Your task to perform on an android device: What is the news today? Image 0: 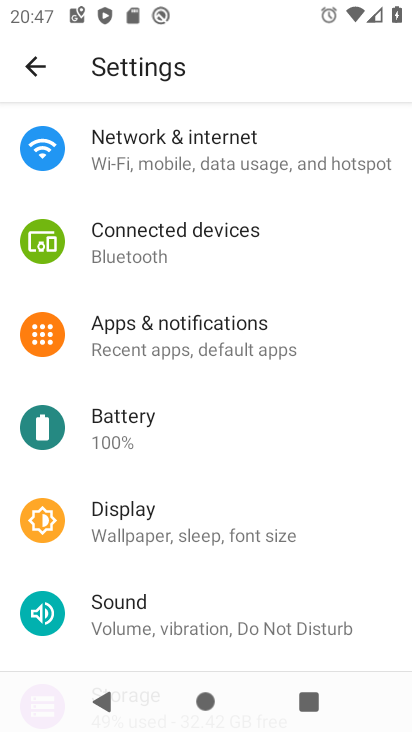
Step 0: press home button
Your task to perform on an android device: What is the news today? Image 1: 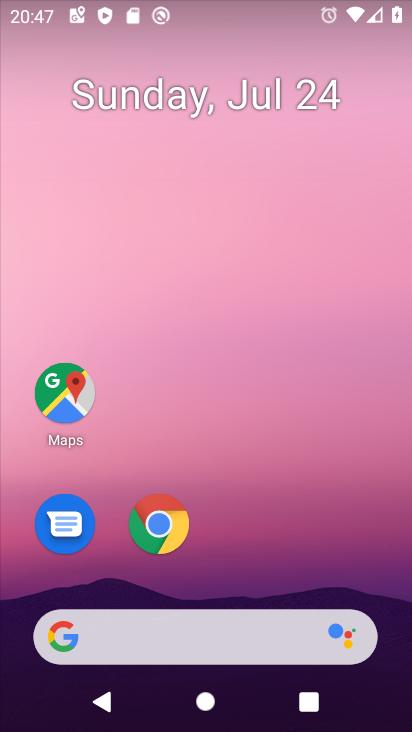
Step 1: click (219, 645)
Your task to perform on an android device: What is the news today? Image 2: 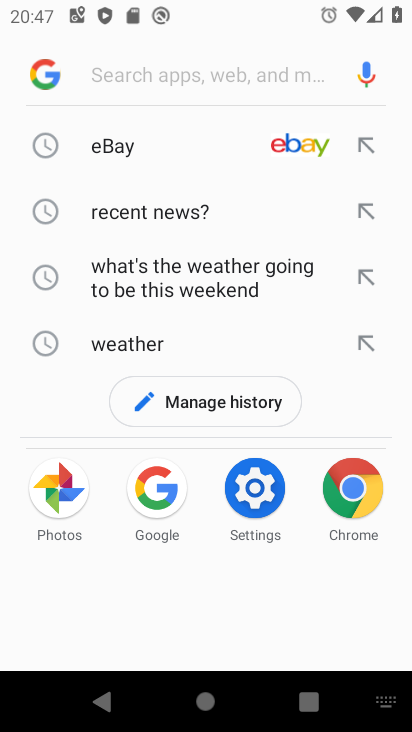
Step 2: click (134, 203)
Your task to perform on an android device: What is the news today? Image 3: 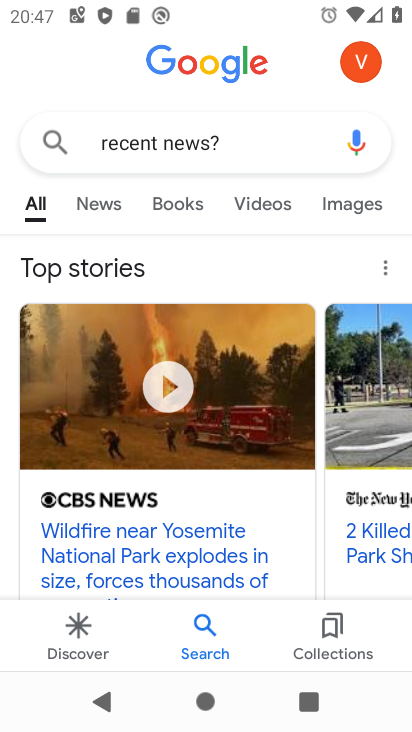
Step 3: drag from (230, 511) to (263, 181)
Your task to perform on an android device: What is the news today? Image 4: 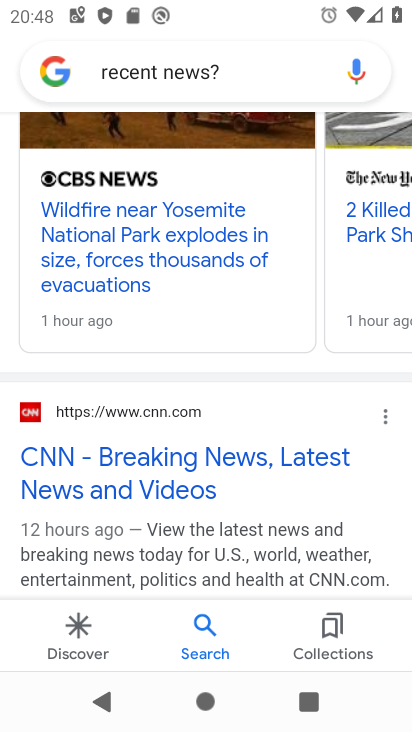
Step 4: drag from (266, 536) to (254, 312)
Your task to perform on an android device: What is the news today? Image 5: 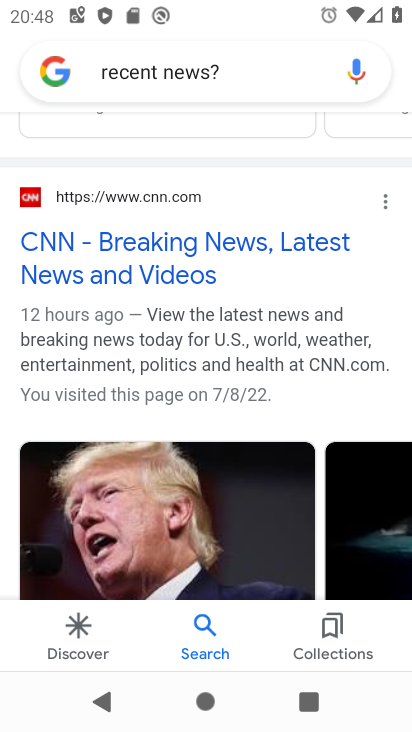
Step 5: drag from (210, 220) to (227, 613)
Your task to perform on an android device: What is the news today? Image 6: 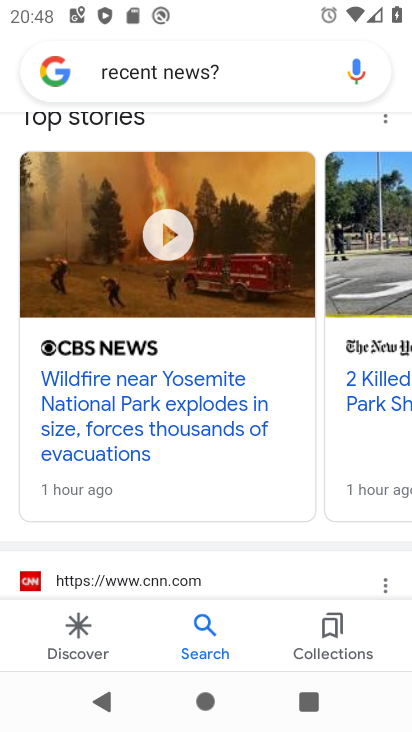
Step 6: drag from (228, 372) to (48, 314)
Your task to perform on an android device: What is the news today? Image 7: 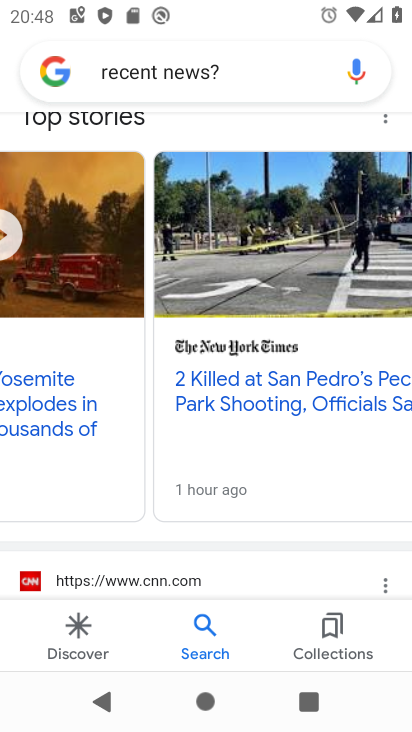
Step 7: drag from (358, 392) to (142, 393)
Your task to perform on an android device: What is the news today? Image 8: 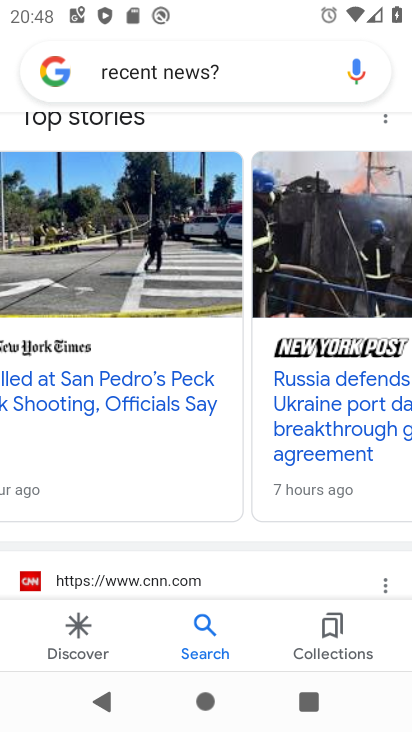
Step 8: drag from (347, 418) to (187, 423)
Your task to perform on an android device: What is the news today? Image 9: 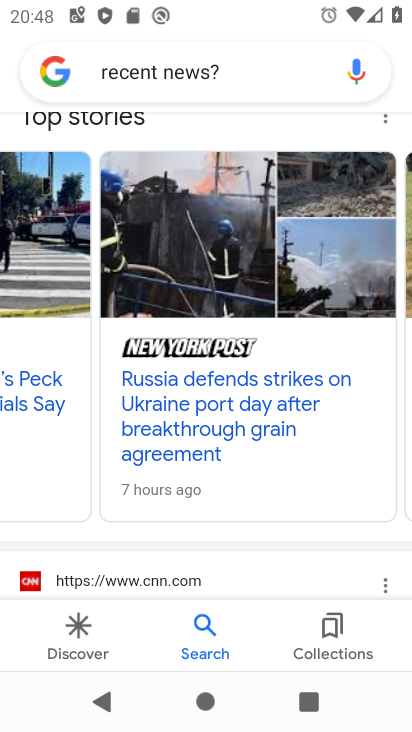
Step 9: drag from (328, 405) to (19, 448)
Your task to perform on an android device: What is the news today? Image 10: 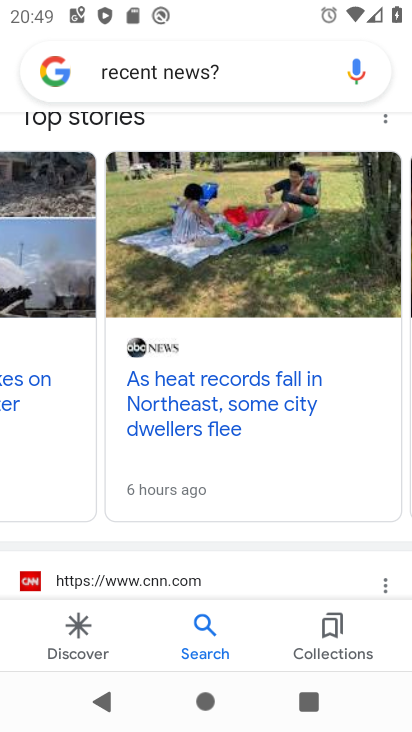
Step 10: drag from (351, 270) to (338, 308)
Your task to perform on an android device: What is the news today? Image 11: 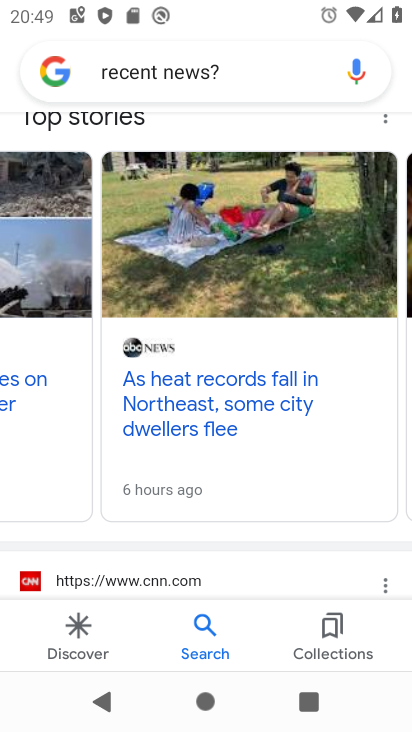
Step 11: drag from (87, 276) to (325, 305)
Your task to perform on an android device: What is the news today? Image 12: 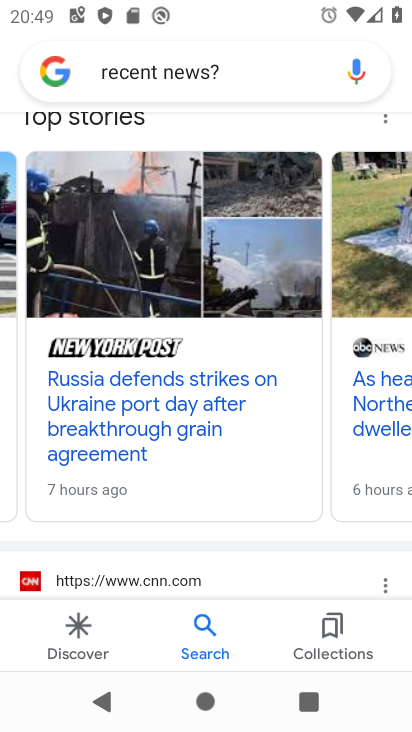
Step 12: click (387, 394)
Your task to perform on an android device: What is the news today? Image 13: 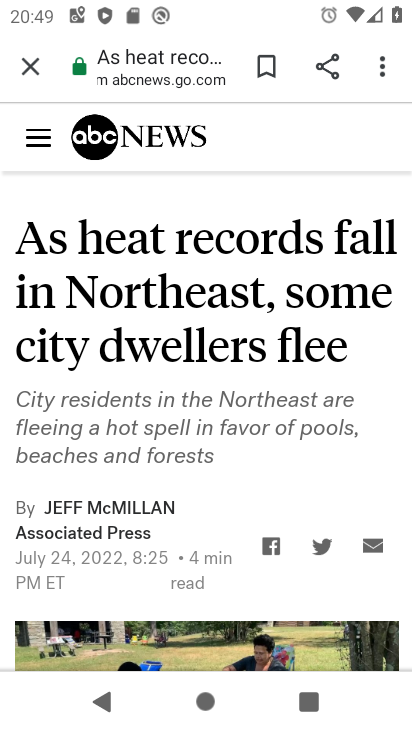
Step 13: task complete